Your task to perform on an android device: turn off location history Image 0: 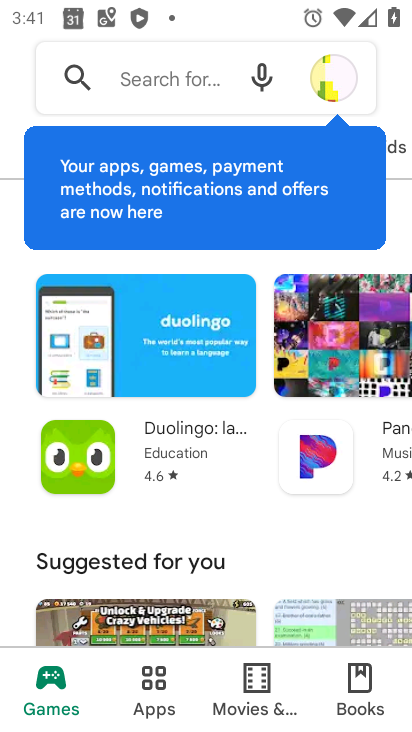
Step 0: press home button
Your task to perform on an android device: turn off location history Image 1: 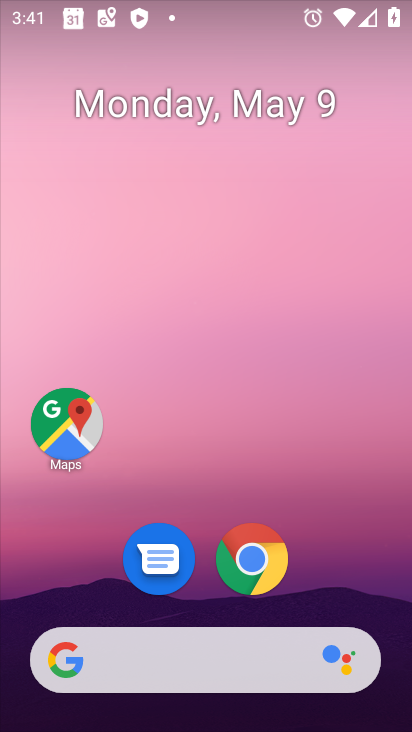
Step 1: drag from (214, 721) to (221, 145)
Your task to perform on an android device: turn off location history Image 2: 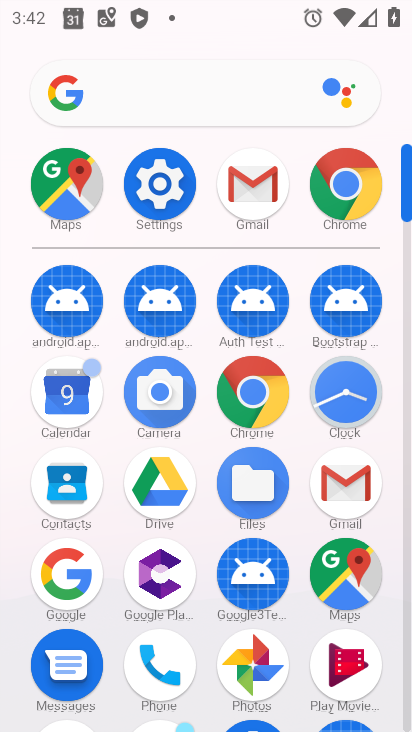
Step 2: click (162, 189)
Your task to perform on an android device: turn off location history Image 3: 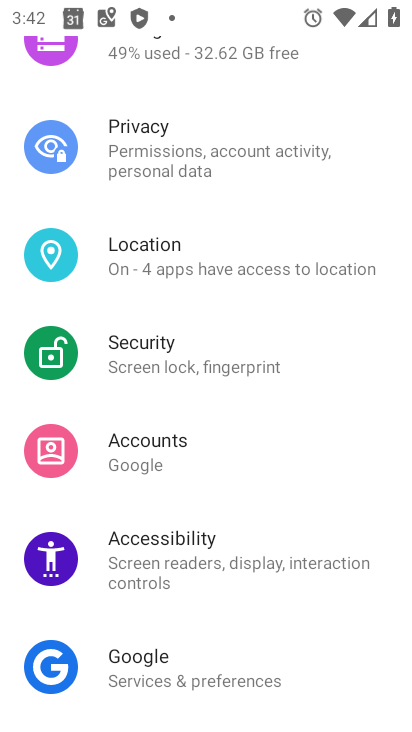
Step 3: click (162, 262)
Your task to perform on an android device: turn off location history Image 4: 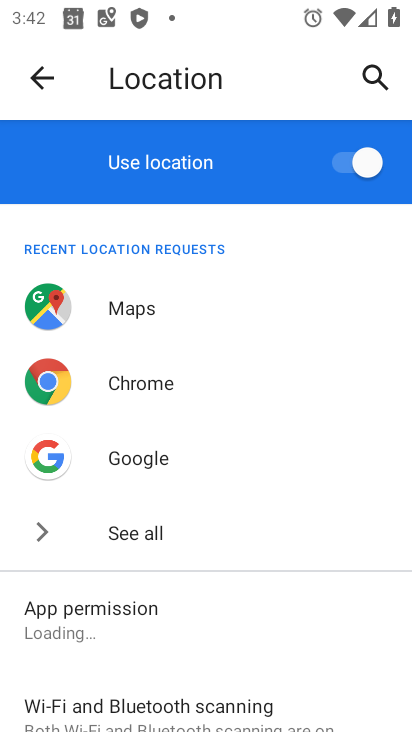
Step 4: drag from (215, 644) to (236, 210)
Your task to perform on an android device: turn off location history Image 5: 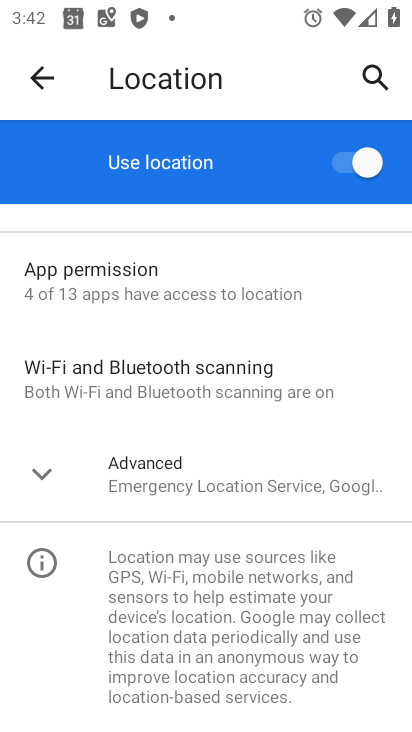
Step 5: click (192, 477)
Your task to perform on an android device: turn off location history Image 6: 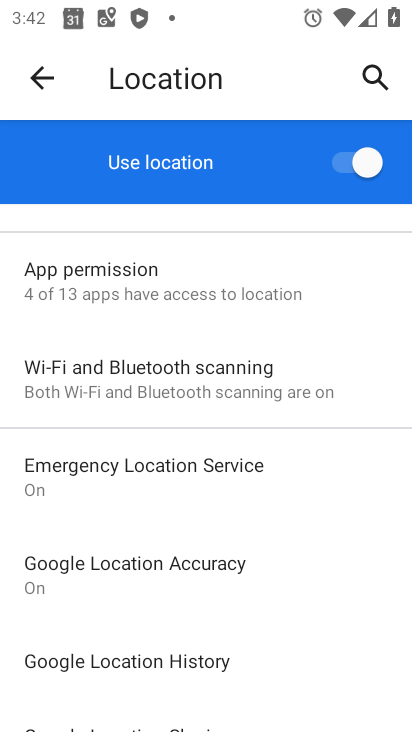
Step 6: drag from (198, 694) to (200, 499)
Your task to perform on an android device: turn off location history Image 7: 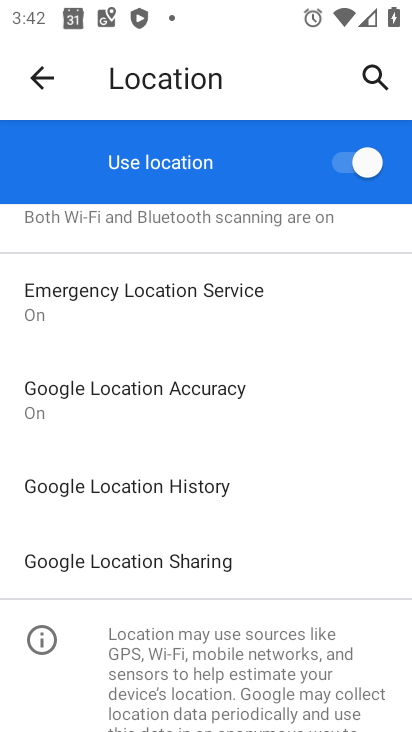
Step 7: click (152, 483)
Your task to perform on an android device: turn off location history Image 8: 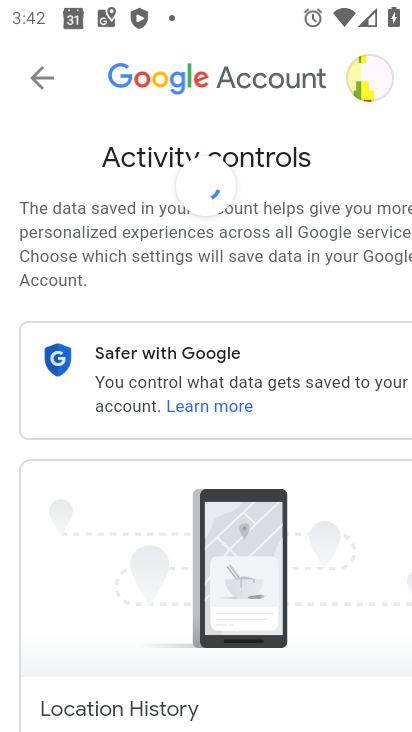
Step 8: task complete